Your task to perform on an android device: turn off translation in the chrome app Image 0: 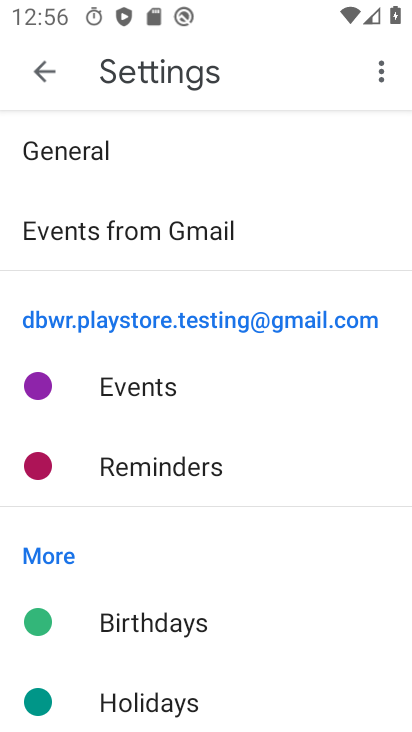
Step 0: press back button
Your task to perform on an android device: turn off translation in the chrome app Image 1: 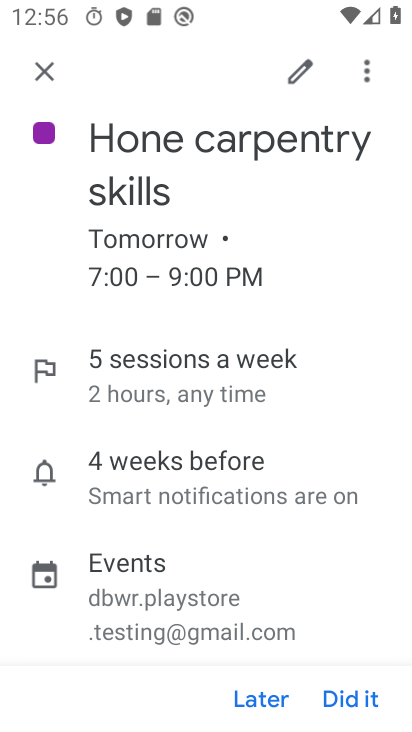
Step 1: press back button
Your task to perform on an android device: turn off translation in the chrome app Image 2: 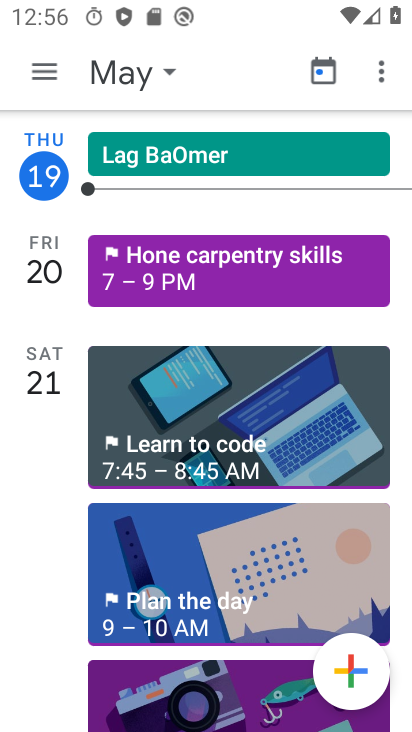
Step 2: press home button
Your task to perform on an android device: turn off translation in the chrome app Image 3: 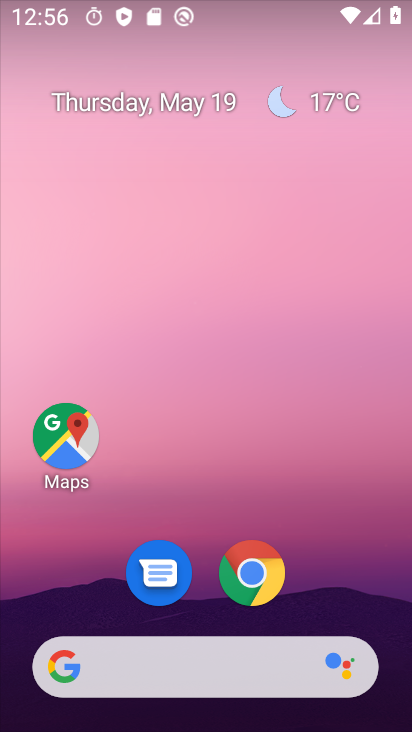
Step 3: click (268, 576)
Your task to perform on an android device: turn off translation in the chrome app Image 4: 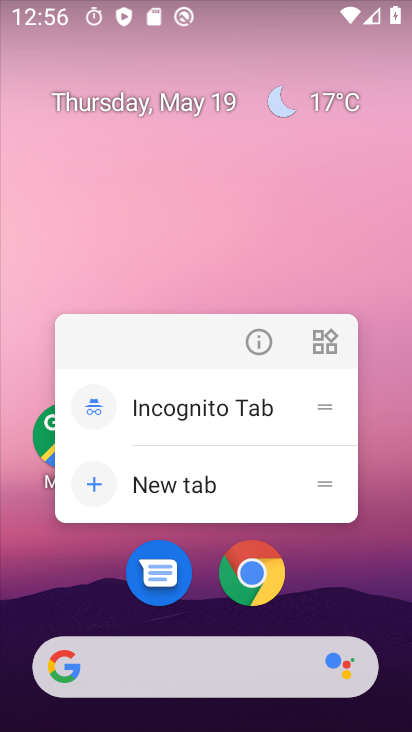
Step 4: click (249, 565)
Your task to perform on an android device: turn off translation in the chrome app Image 5: 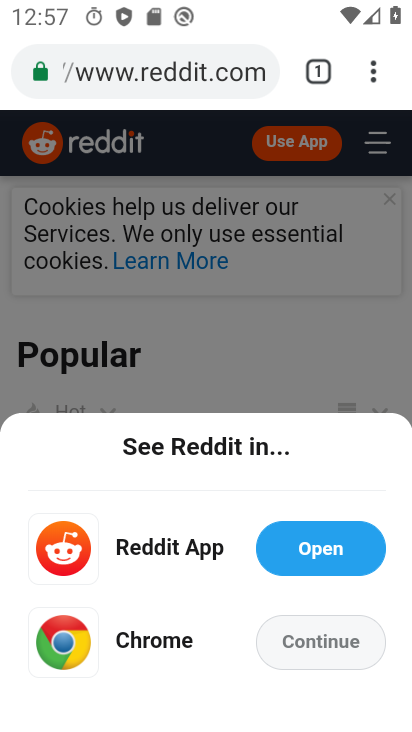
Step 5: drag from (371, 69) to (152, 568)
Your task to perform on an android device: turn off translation in the chrome app Image 6: 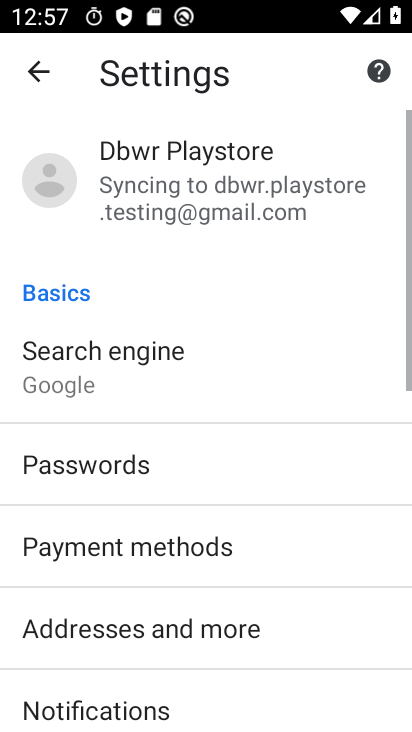
Step 6: drag from (184, 594) to (289, 101)
Your task to perform on an android device: turn off translation in the chrome app Image 7: 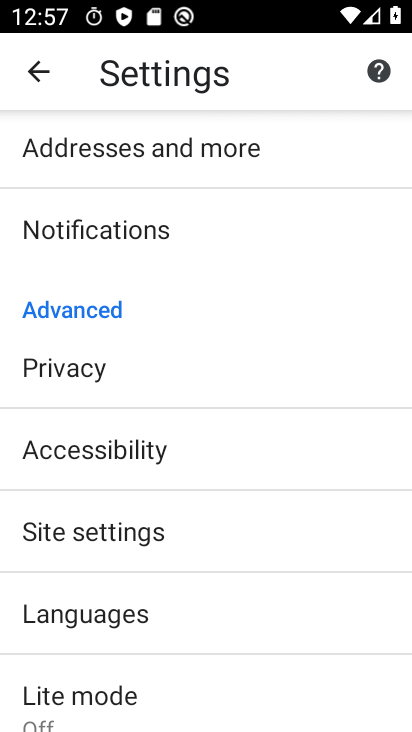
Step 7: click (108, 626)
Your task to perform on an android device: turn off translation in the chrome app Image 8: 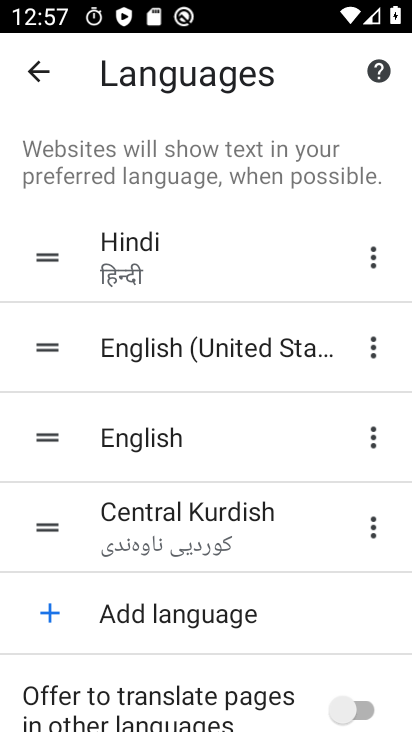
Step 8: task complete